Your task to perform on an android device: change the clock display to analog Image 0: 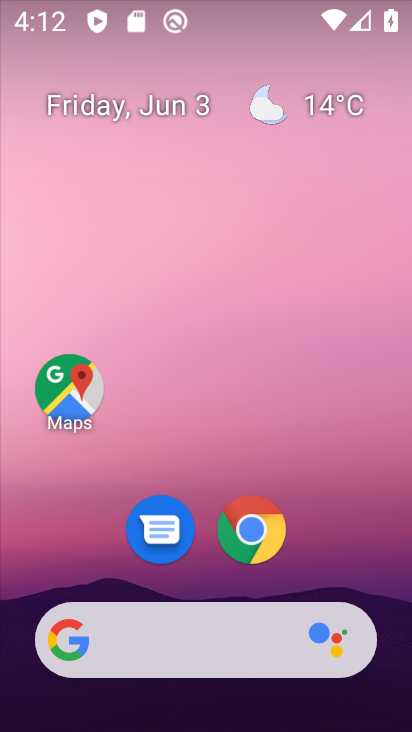
Step 0: drag from (371, 527) to (363, 31)
Your task to perform on an android device: change the clock display to analog Image 1: 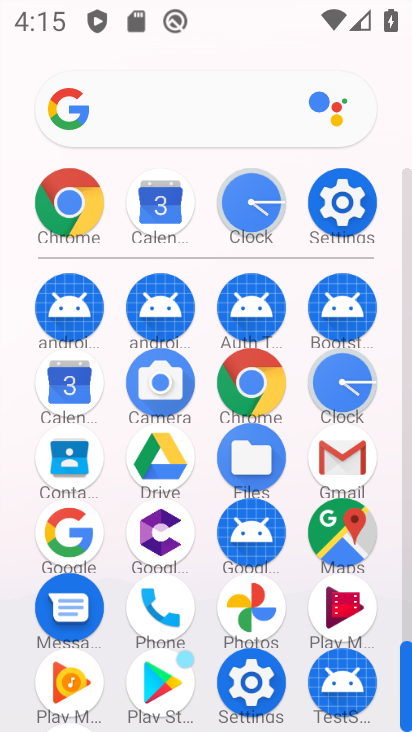
Step 1: click (347, 396)
Your task to perform on an android device: change the clock display to analog Image 2: 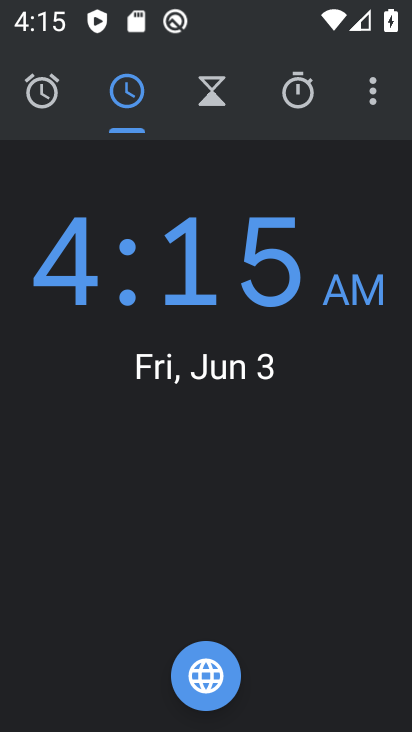
Step 2: click (374, 73)
Your task to perform on an android device: change the clock display to analog Image 3: 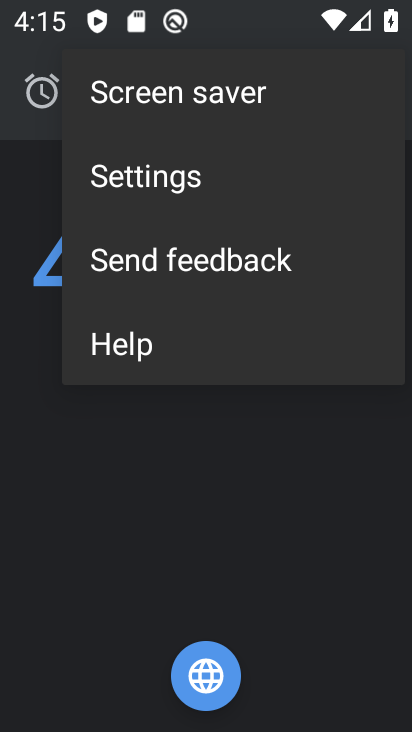
Step 3: click (150, 180)
Your task to perform on an android device: change the clock display to analog Image 4: 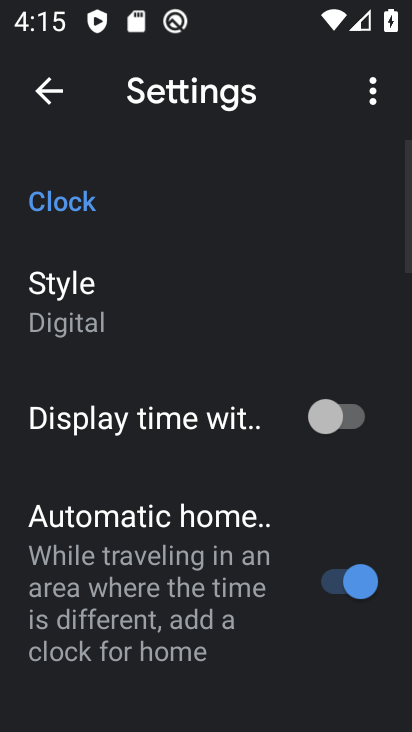
Step 4: click (64, 315)
Your task to perform on an android device: change the clock display to analog Image 5: 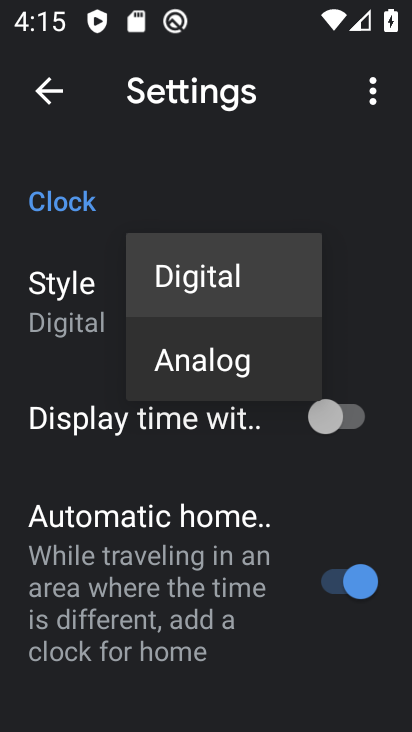
Step 5: click (198, 361)
Your task to perform on an android device: change the clock display to analog Image 6: 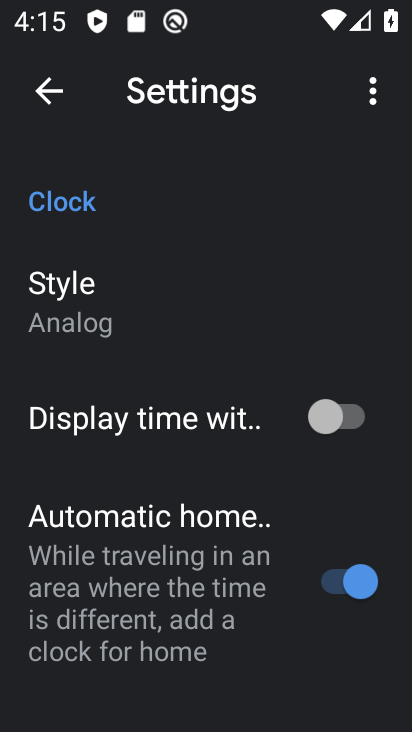
Step 6: task complete